Your task to perform on an android device: remove spam from my inbox in the gmail app Image 0: 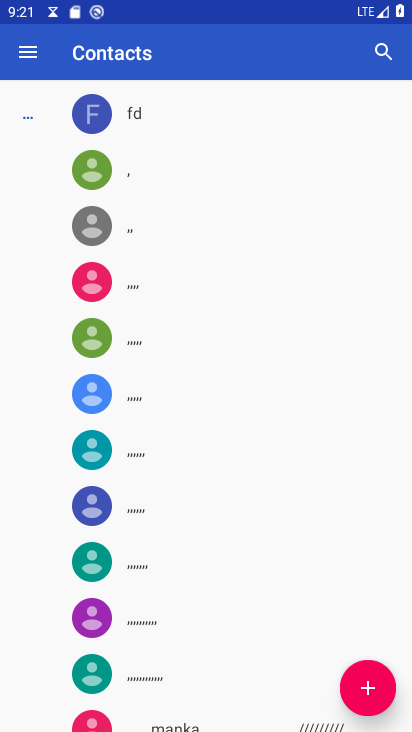
Step 0: press home button
Your task to perform on an android device: remove spam from my inbox in the gmail app Image 1: 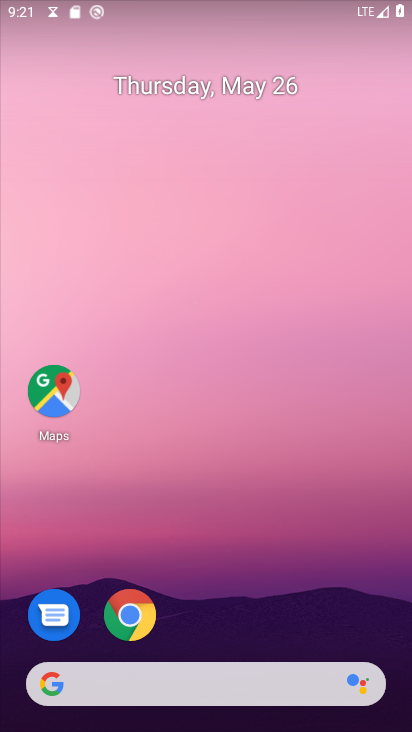
Step 1: drag from (194, 562) to (158, 191)
Your task to perform on an android device: remove spam from my inbox in the gmail app Image 2: 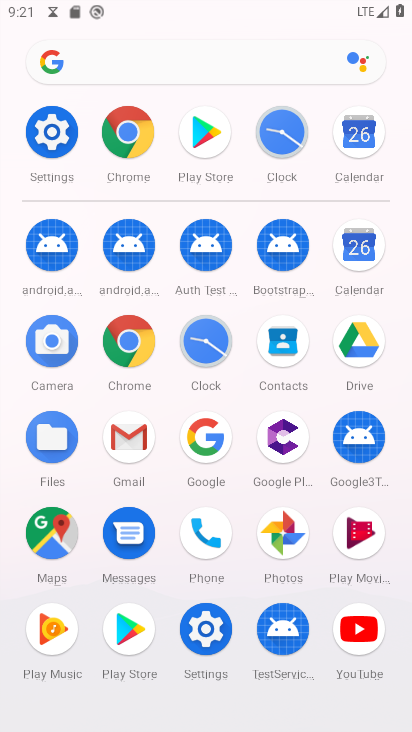
Step 2: click (130, 436)
Your task to perform on an android device: remove spam from my inbox in the gmail app Image 3: 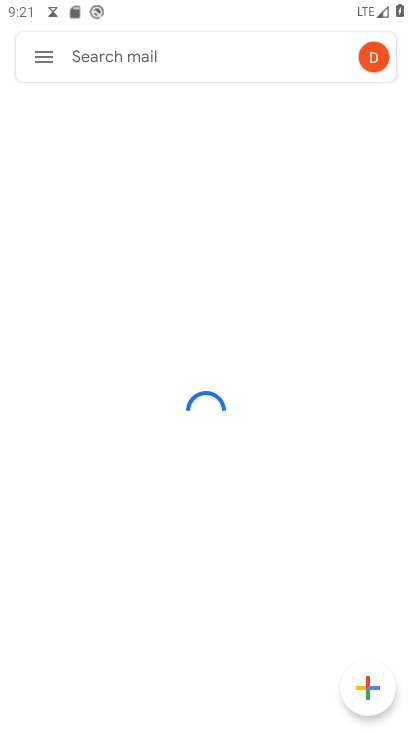
Step 3: click (32, 55)
Your task to perform on an android device: remove spam from my inbox in the gmail app Image 4: 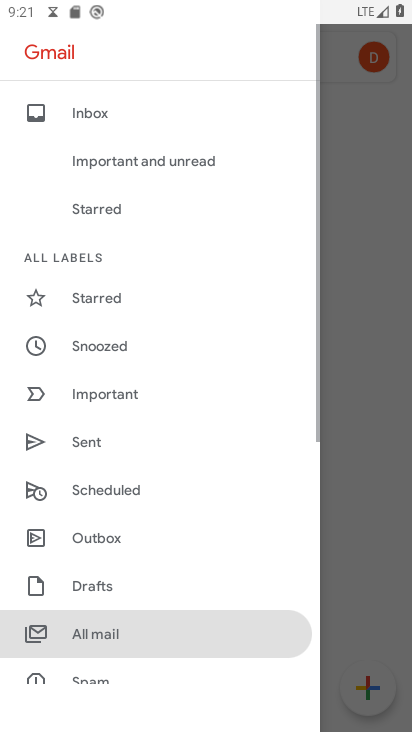
Step 4: click (400, 303)
Your task to perform on an android device: remove spam from my inbox in the gmail app Image 5: 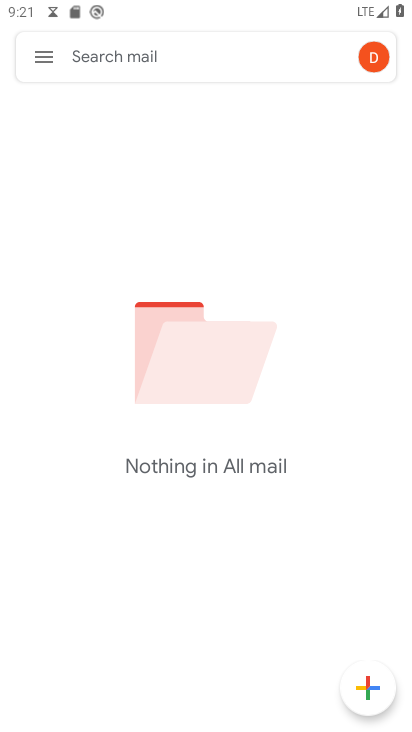
Step 5: click (43, 56)
Your task to perform on an android device: remove spam from my inbox in the gmail app Image 6: 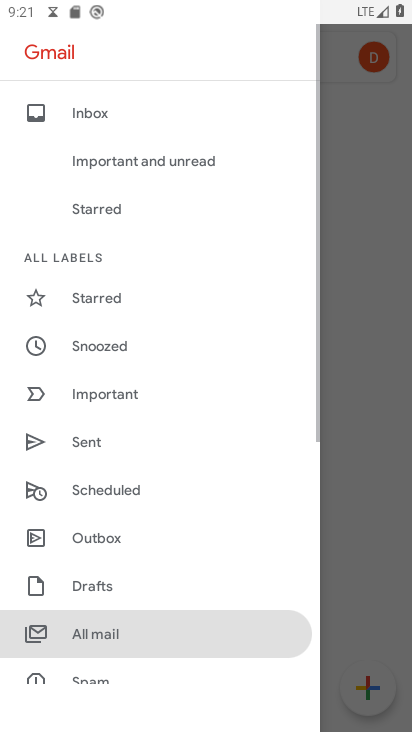
Step 6: drag from (147, 556) to (130, 223)
Your task to perform on an android device: remove spam from my inbox in the gmail app Image 7: 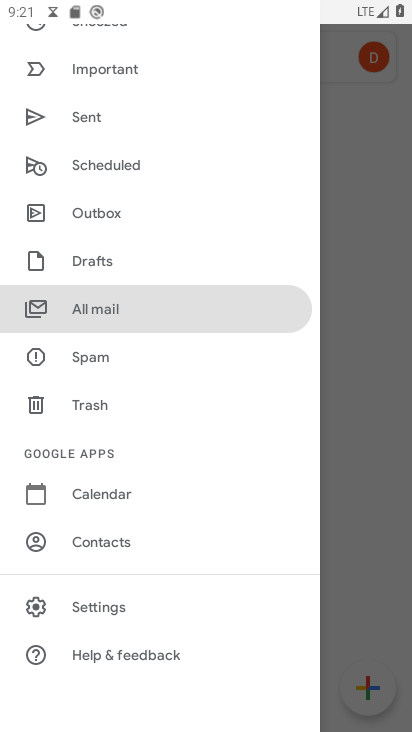
Step 7: click (94, 359)
Your task to perform on an android device: remove spam from my inbox in the gmail app Image 8: 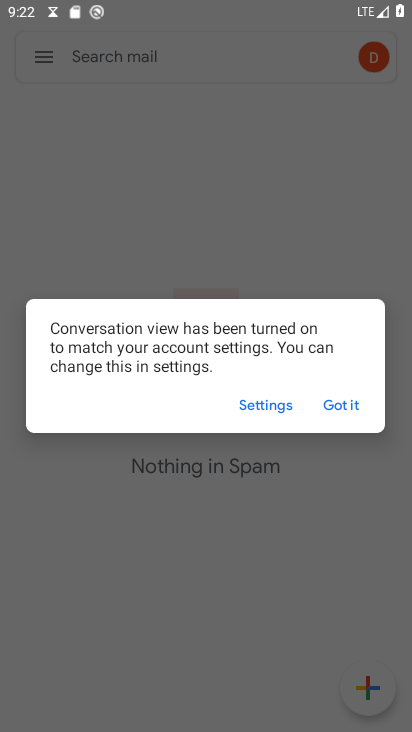
Step 8: click (347, 406)
Your task to perform on an android device: remove spam from my inbox in the gmail app Image 9: 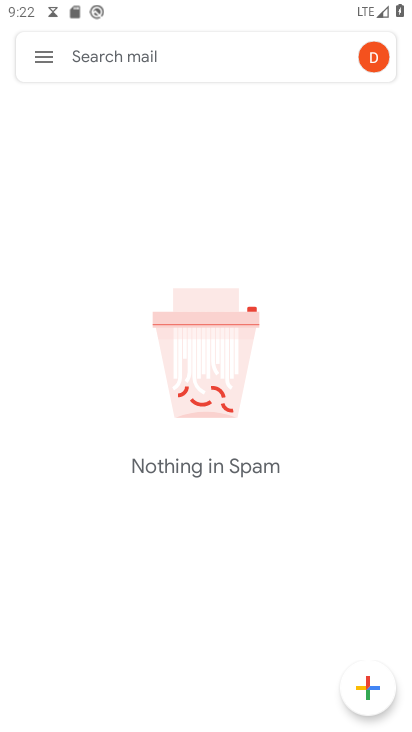
Step 9: task complete